Your task to perform on an android device: Go to Yahoo.com Image 0: 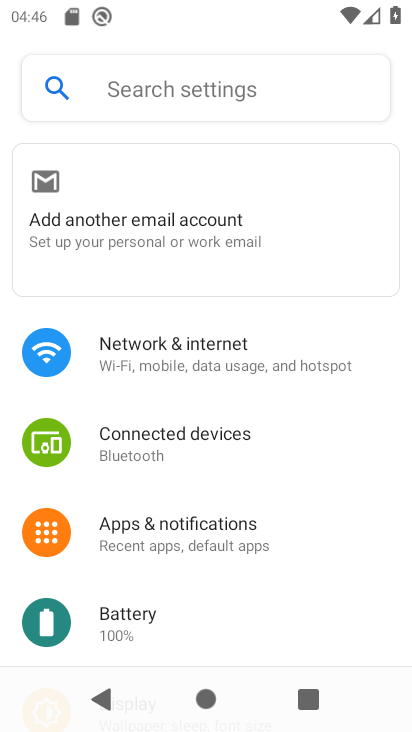
Step 0: press home button
Your task to perform on an android device: Go to Yahoo.com Image 1: 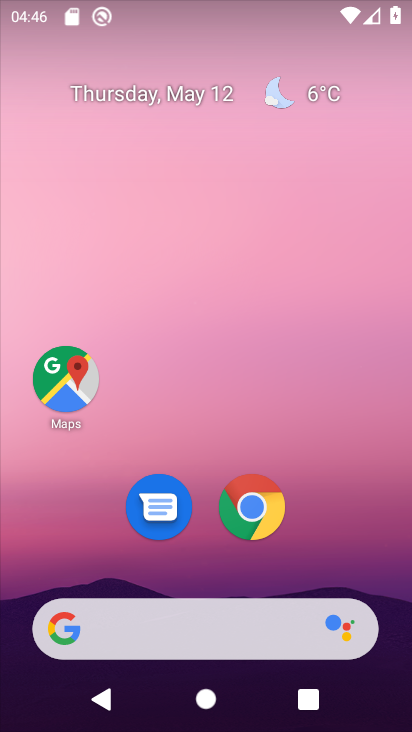
Step 1: click (266, 522)
Your task to perform on an android device: Go to Yahoo.com Image 2: 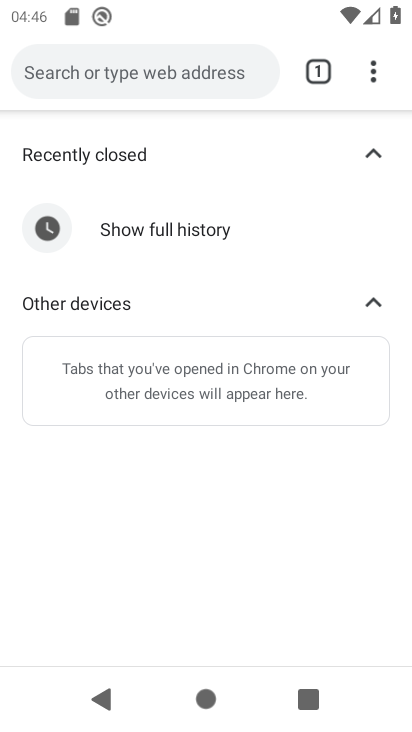
Step 2: task complete